Your task to perform on an android device: move a message to another label in the gmail app Image 0: 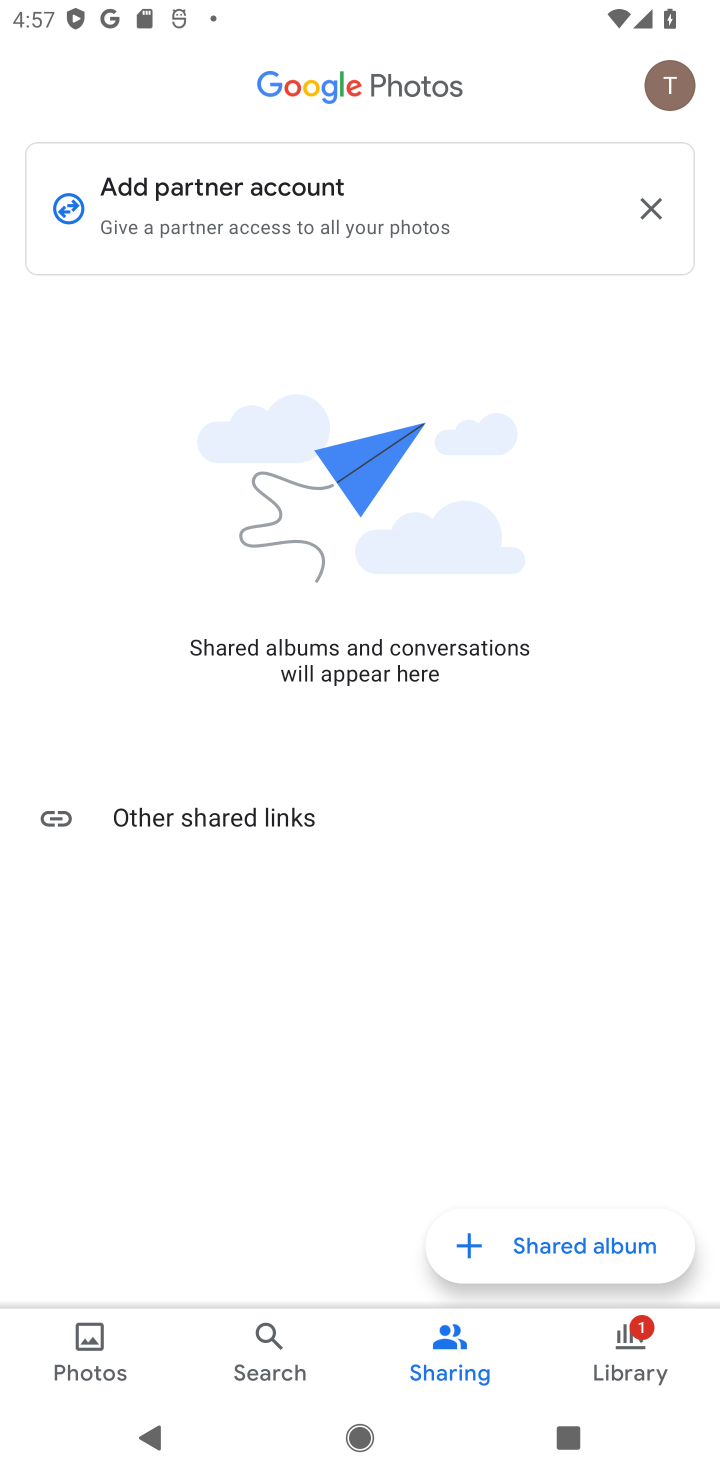
Step 0: press home button
Your task to perform on an android device: move a message to another label in the gmail app Image 1: 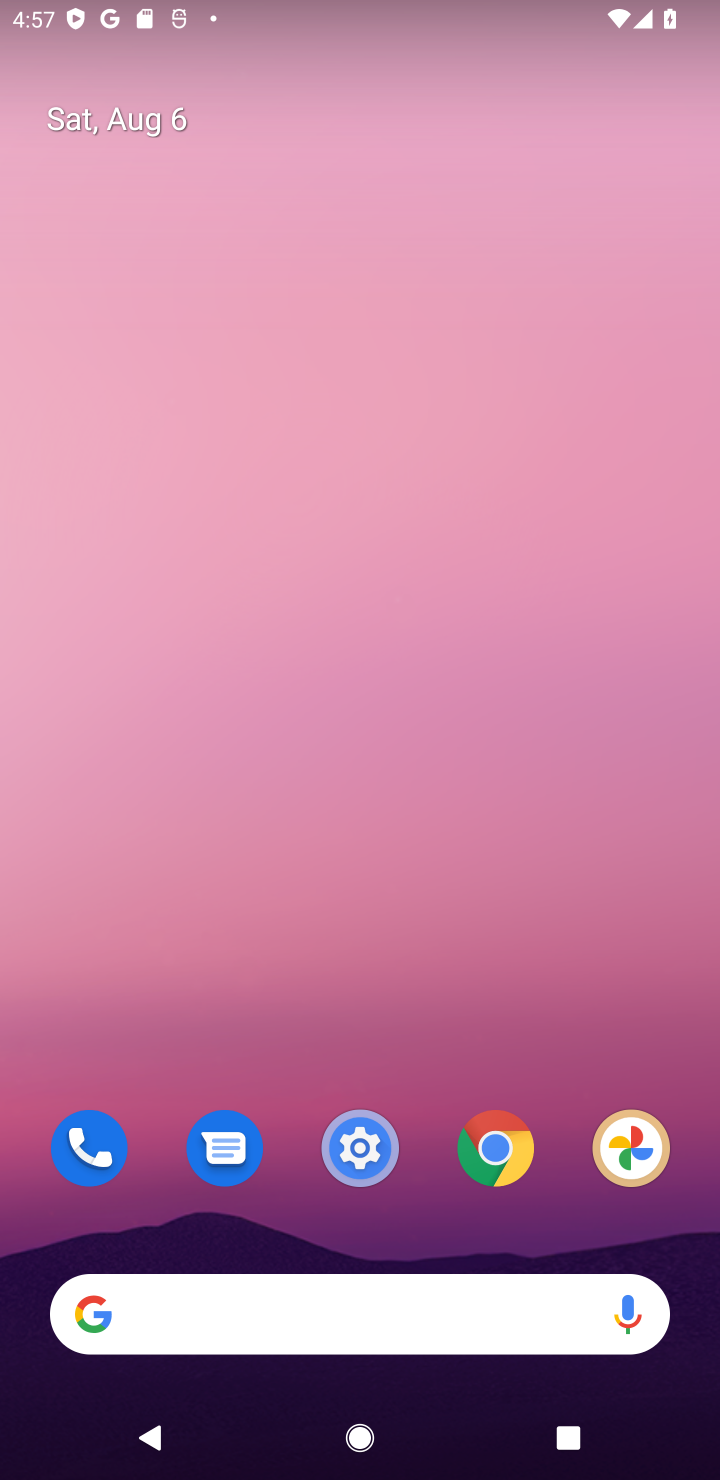
Step 1: drag from (314, 1155) to (495, 3)
Your task to perform on an android device: move a message to another label in the gmail app Image 2: 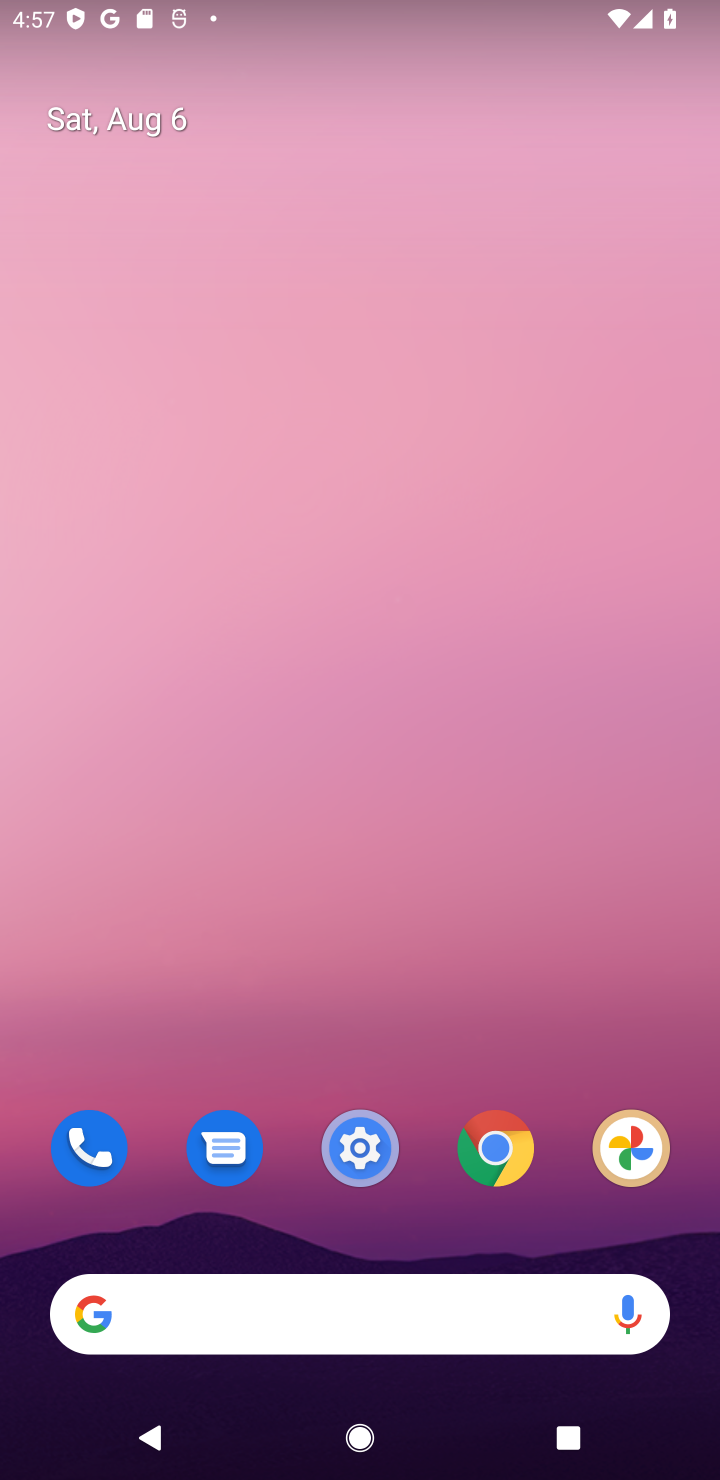
Step 2: drag from (283, 1174) to (506, 183)
Your task to perform on an android device: move a message to another label in the gmail app Image 3: 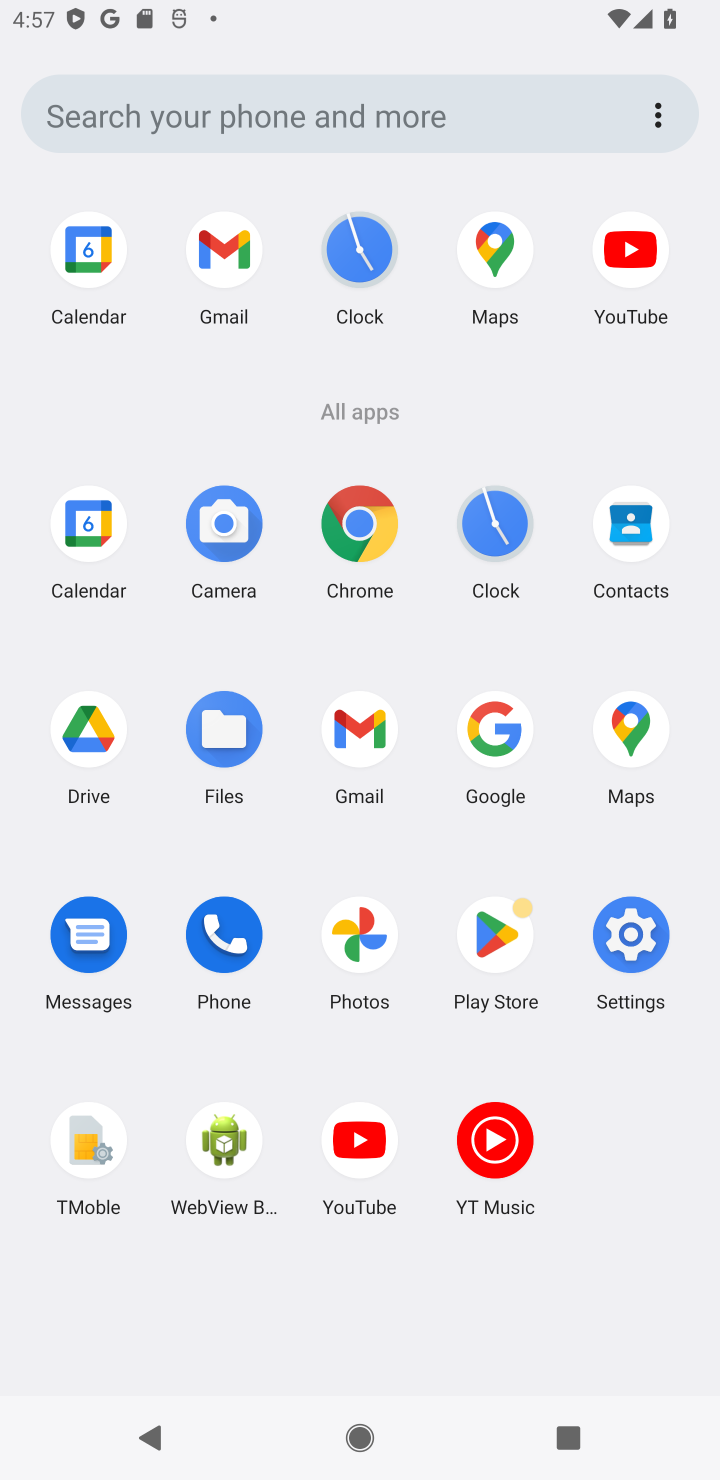
Step 3: click (357, 728)
Your task to perform on an android device: move a message to another label in the gmail app Image 4: 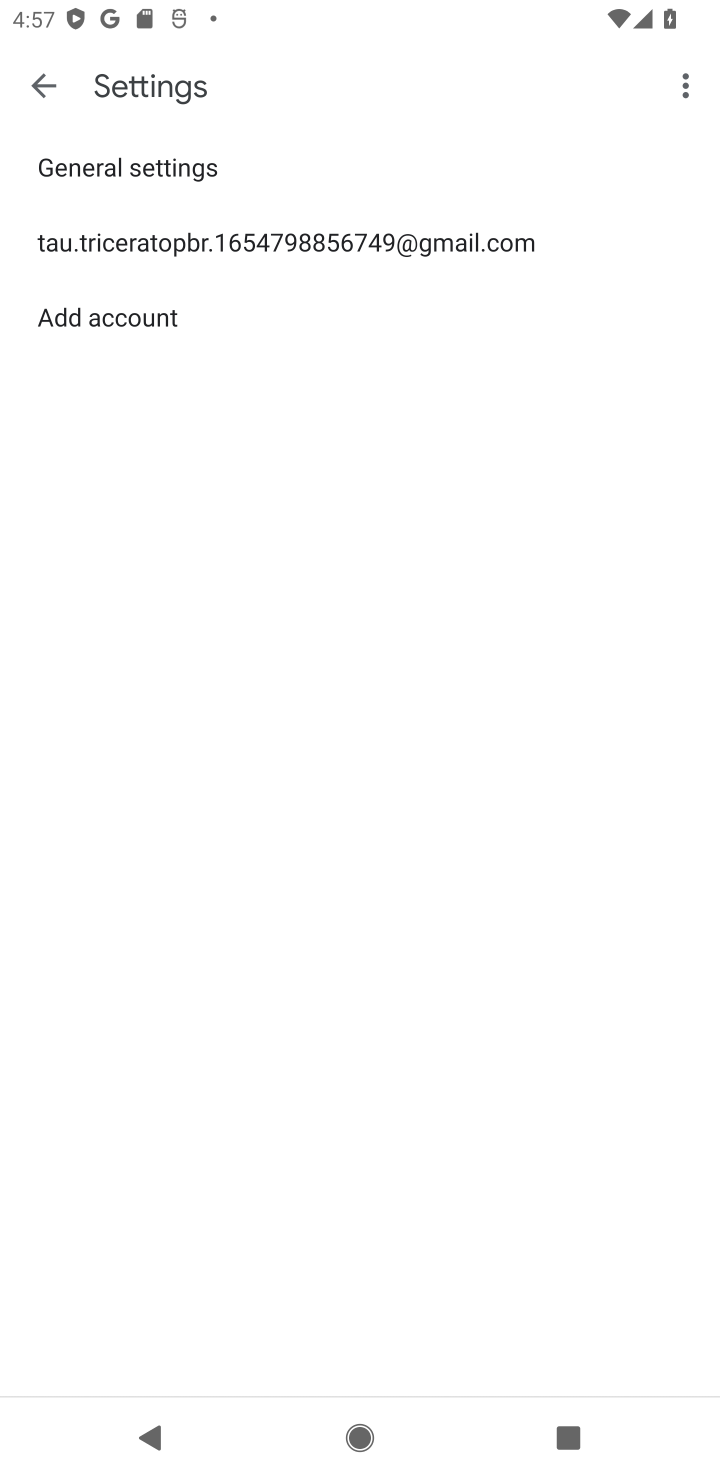
Step 4: click (48, 81)
Your task to perform on an android device: move a message to another label in the gmail app Image 5: 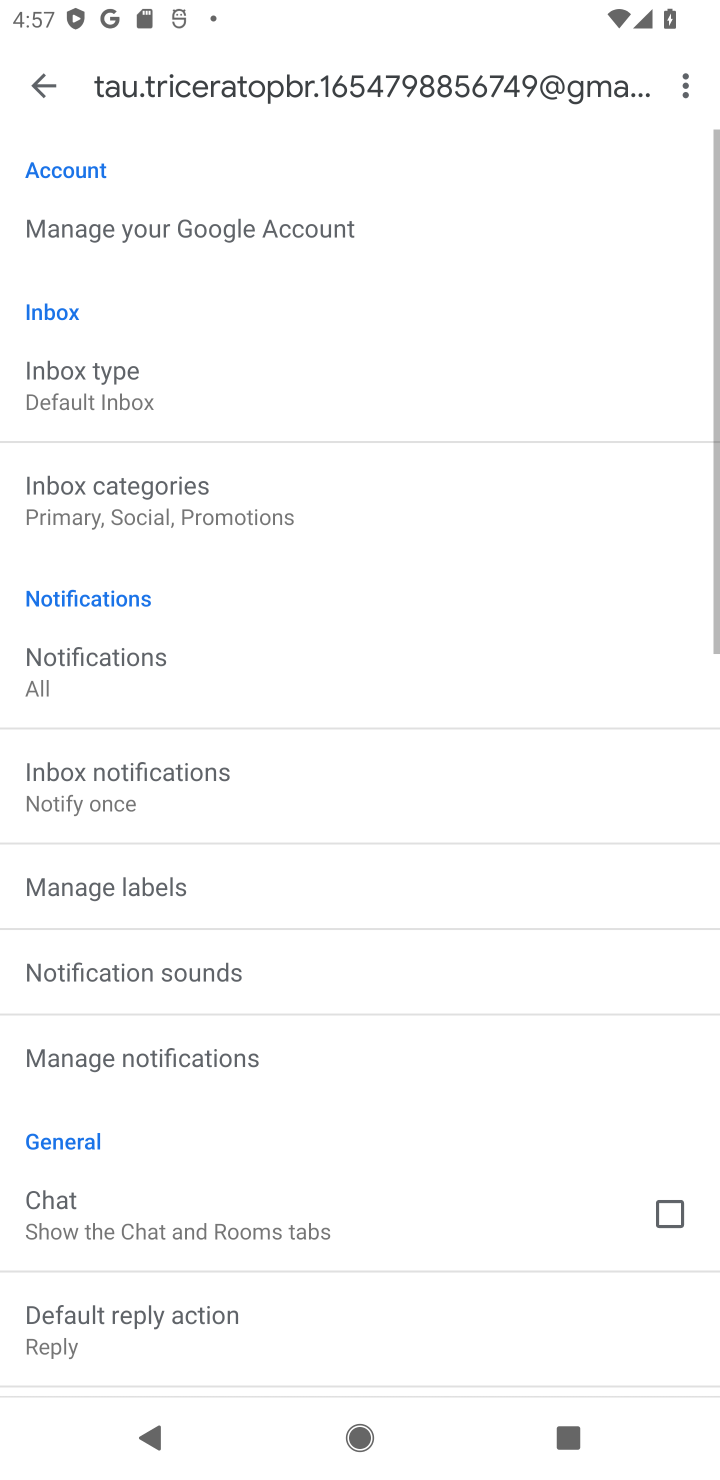
Step 5: click (12, 79)
Your task to perform on an android device: move a message to another label in the gmail app Image 6: 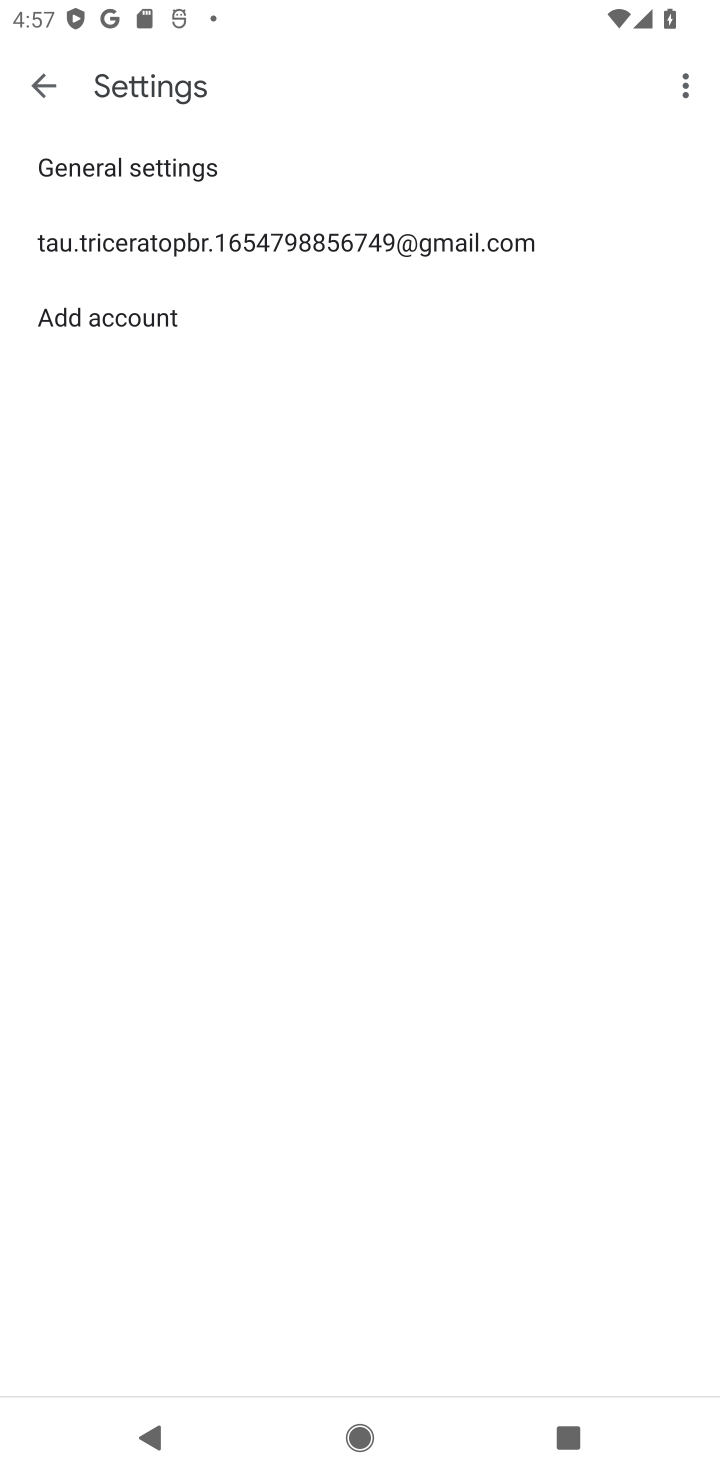
Step 6: click (45, 82)
Your task to perform on an android device: move a message to another label in the gmail app Image 7: 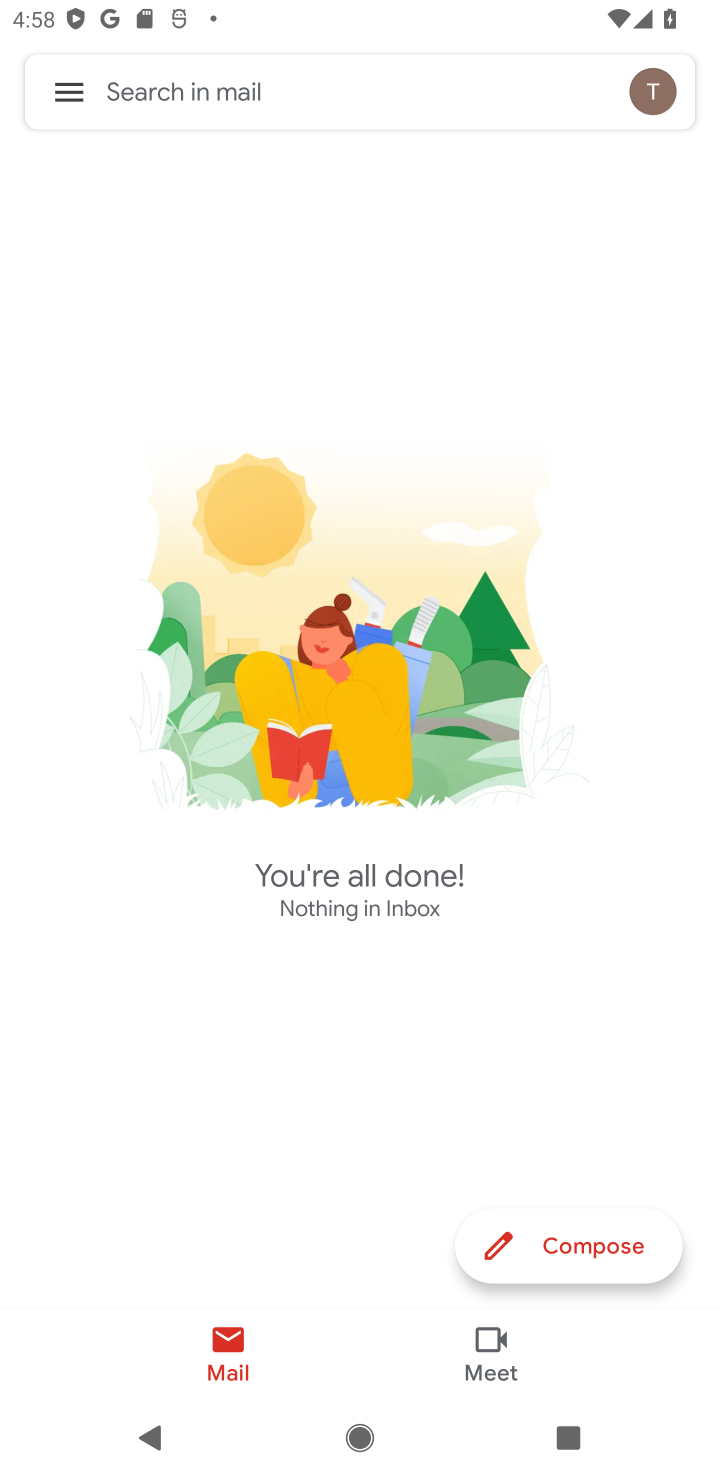
Step 7: task complete